Your task to perform on an android device: toggle notifications settings in the gmail app Image 0: 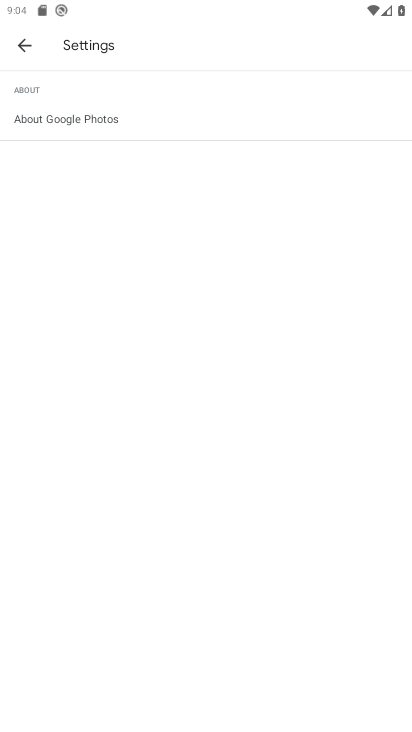
Step 0: press home button
Your task to perform on an android device: toggle notifications settings in the gmail app Image 1: 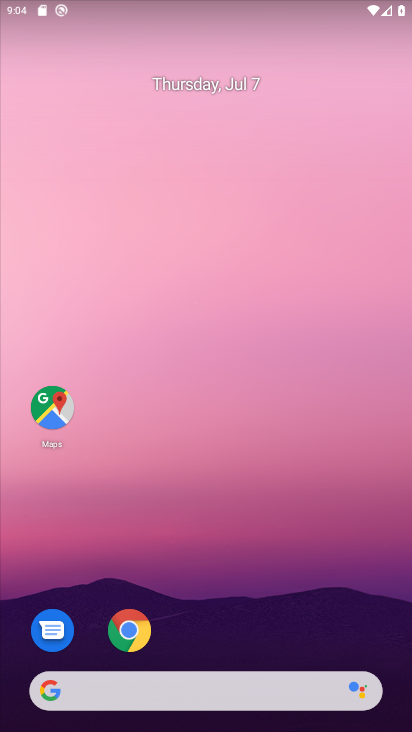
Step 1: drag from (91, 601) to (200, 295)
Your task to perform on an android device: toggle notifications settings in the gmail app Image 2: 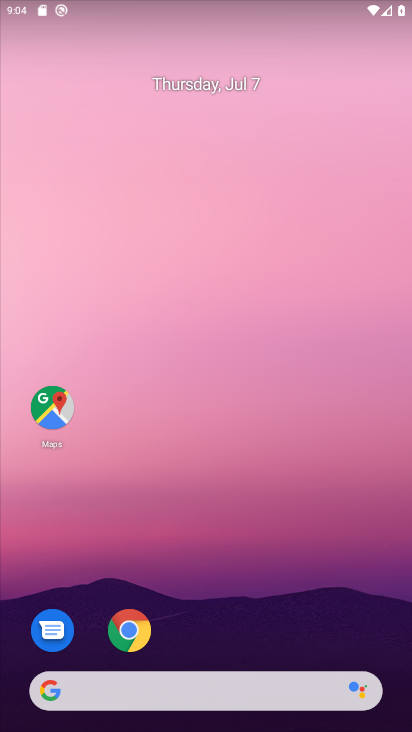
Step 2: drag from (29, 707) to (274, 0)
Your task to perform on an android device: toggle notifications settings in the gmail app Image 3: 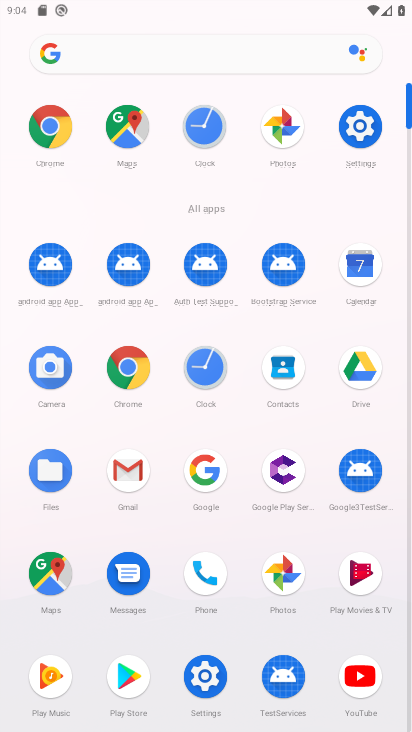
Step 3: click (121, 466)
Your task to perform on an android device: toggle notifications settings in the gmail app Image 4: 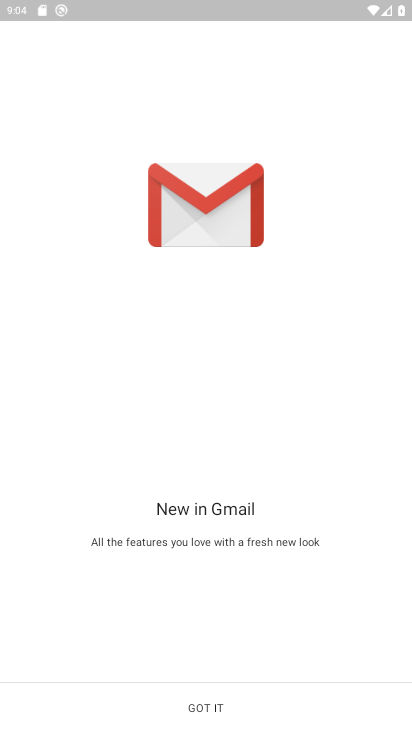
Step 4: click (195, 716)
Your task to perform on an android device: toggle notifications settings in the gmail app Image 5: 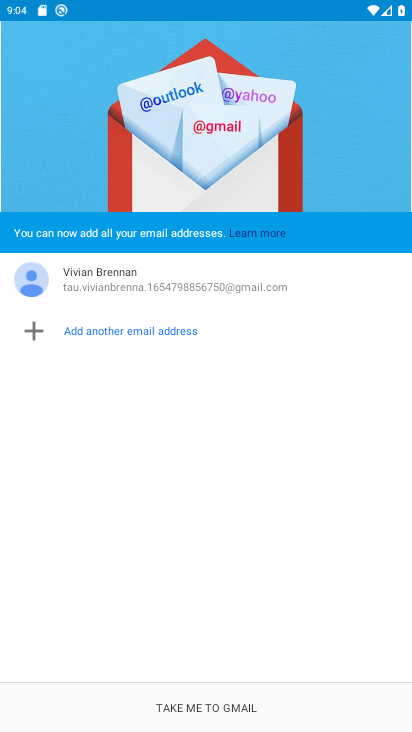
Step 5: click (195, 704)
Your task to perform on an android device: toggle notifications settings in the gmail app Image 6: 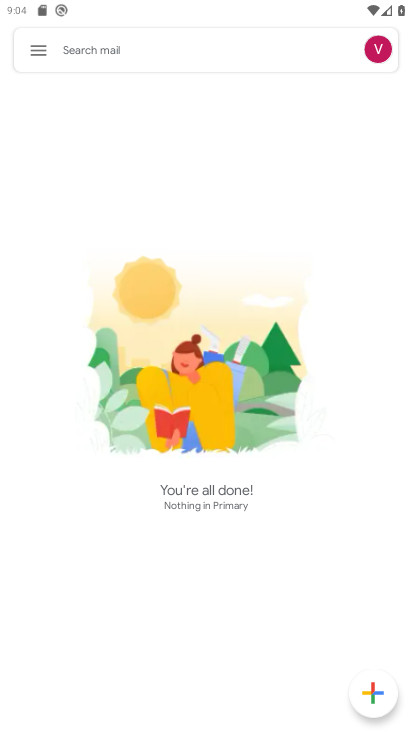
Step 6: click (37, 48)
Your task to perform on an android device: toggle notifications settings in the gmail app Image 7: 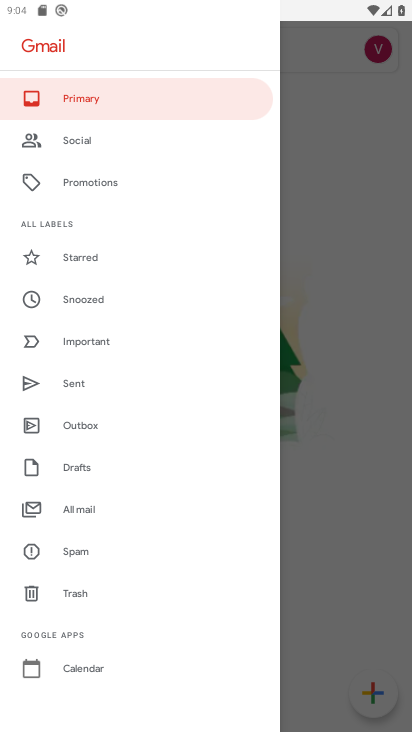
Step 7: click (194, 289)
Your task to perform on an android device: toggle notifications settings in the gmail app Image 8: 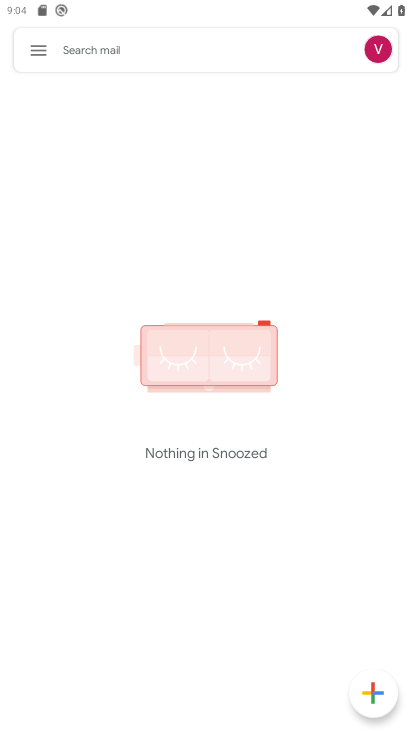
Step 8: click (32, 46)
Your task to perform on an android device: toggle notifications settings in the gmail app Image 9: 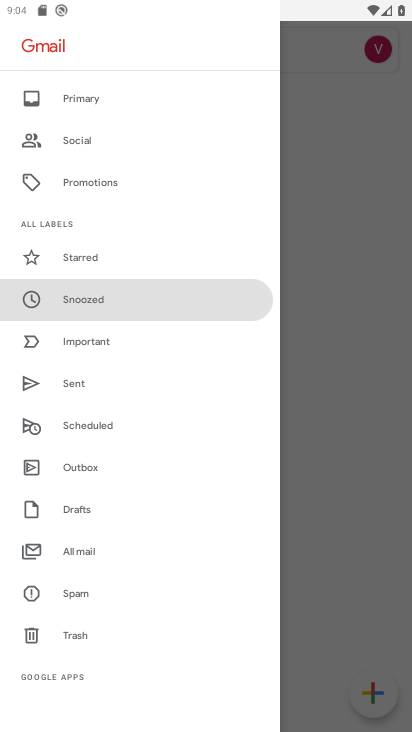
Step 9: drag from (92, 612) to (300, 31)
Your task to perform on an android device: toggle notifications settings in the gmail app Image 10: 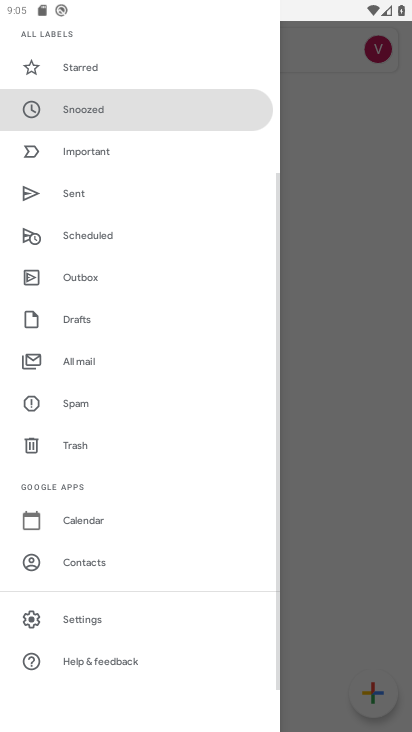
Step 10: click (75, 622)
Your task to perform on an android device: toggle notifications settings in the gmail app Image 11: 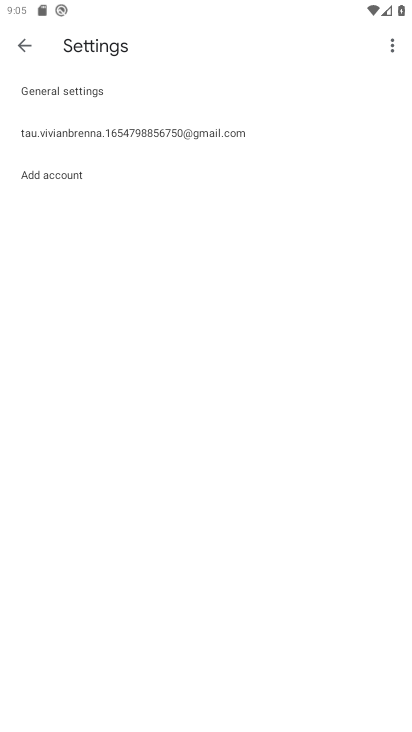
Step 11: click (94, 95)
Your task to perform on an android device: toggle notifications settings in the gmail app Image 12: 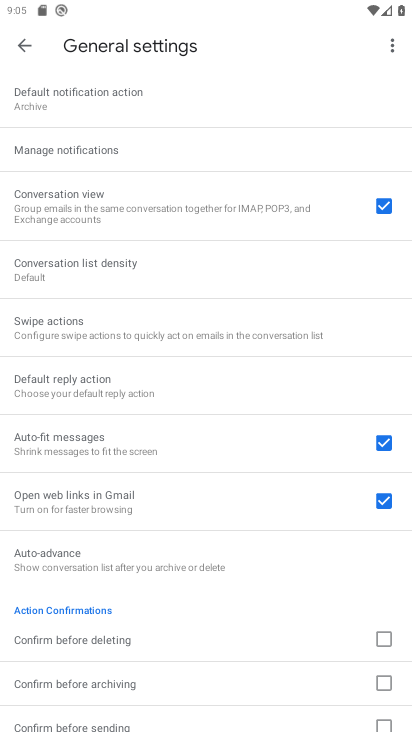
Step 12: click (116, 153)
Your task to perform on an android device: toggle notifications settings in the gmail app Image 13: 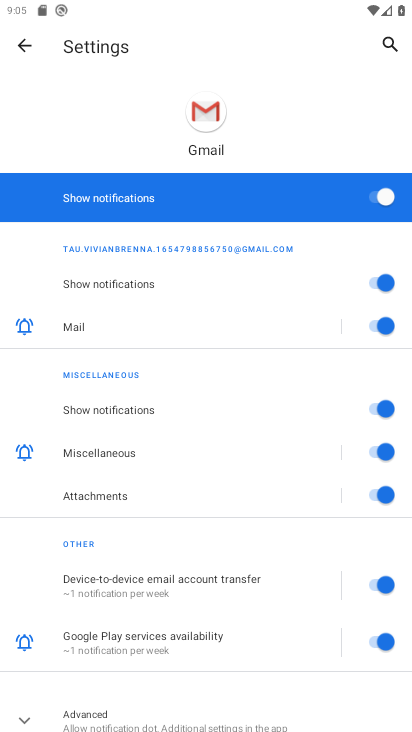
Step 13: task complete